Your task to perform on an android device: Open Google Image 0: 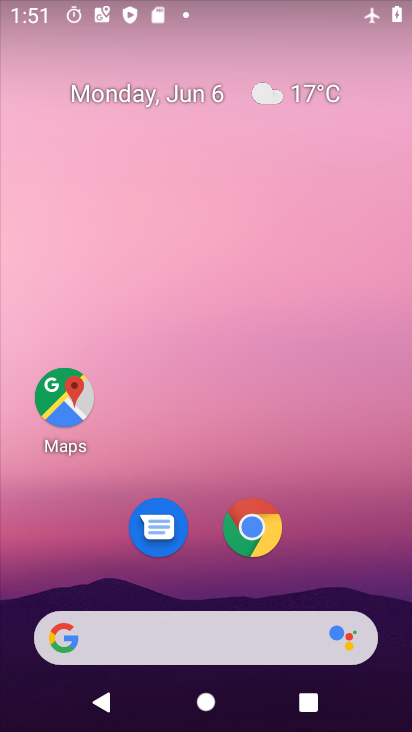
Step 0: drag from (226, 727) to (204, 42)
Your task to perform on an android device: Open Google Image 1: 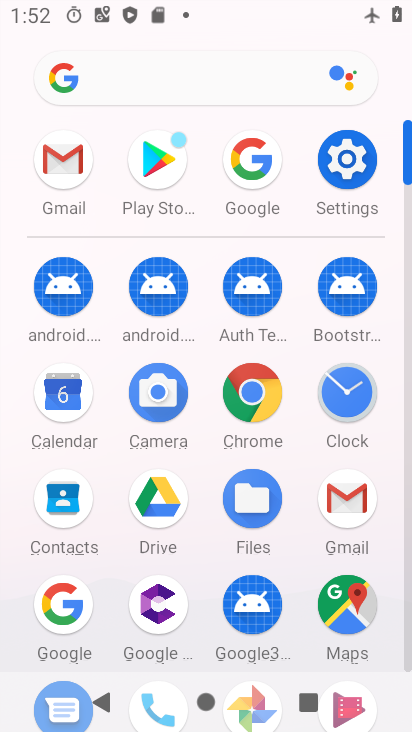
Step 1: drag from (205, 584) to (205, 229)
Your task to perform on an android device: Open Google Image 2: 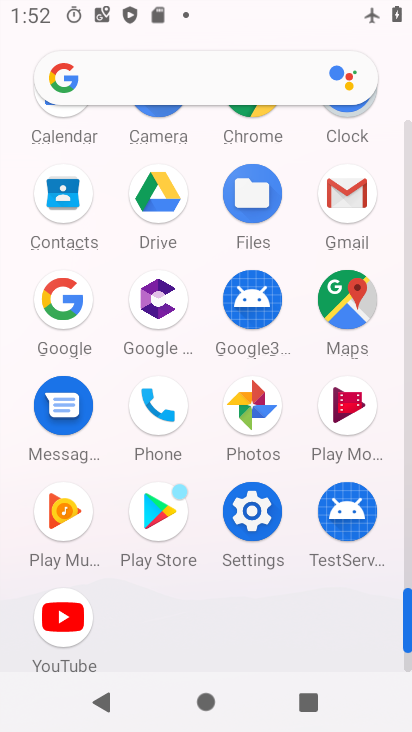
Step 2: click (63, 309)
Your task to perform on an android device: Open Google Image 3: 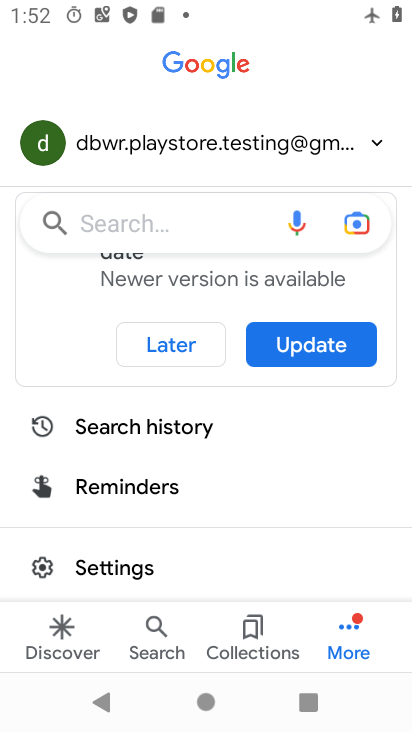
Step 3: task complete